Your task to perform on an android device: delete the emails in spam in the gmail app Image 0: 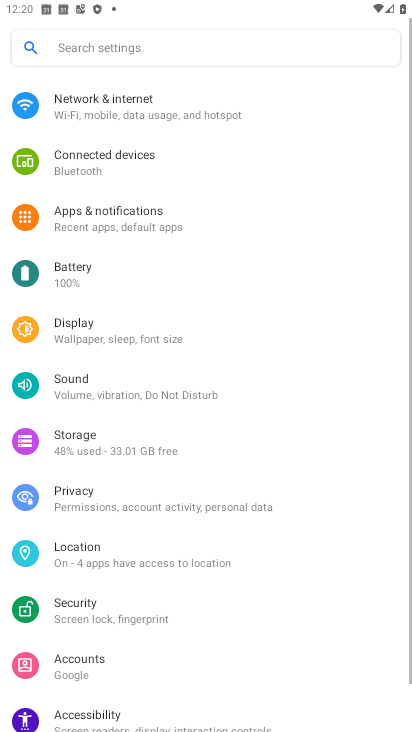
Step 0: drag from (271, 552) to (297, 189)
Your task to perform on an android device: delete the emails in spam in the gmail app Image 1: 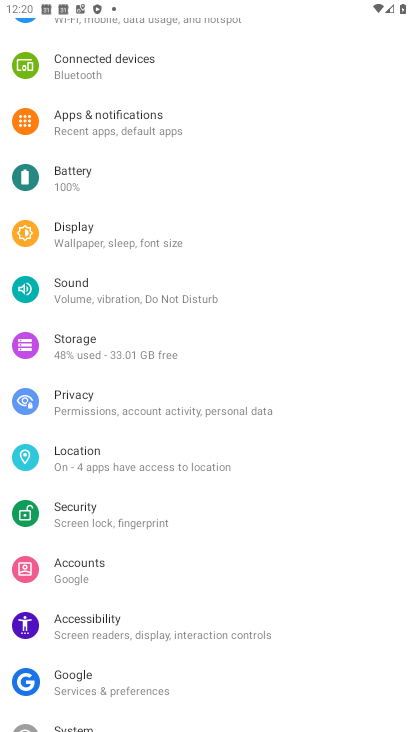
Step 1: click (145, 118)
Your task to perform on an android device: delete the emails in spam in the gmail app Image 2: 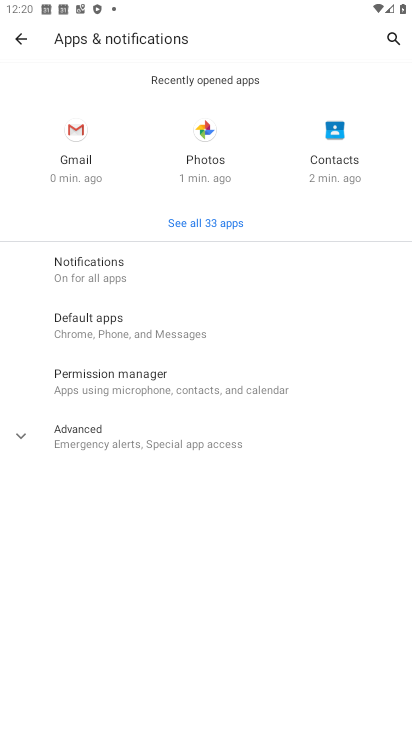
Step 2: click (75, 144)
Your task to perform on an android device: delete the emails in spam in the gmail app Image 3: 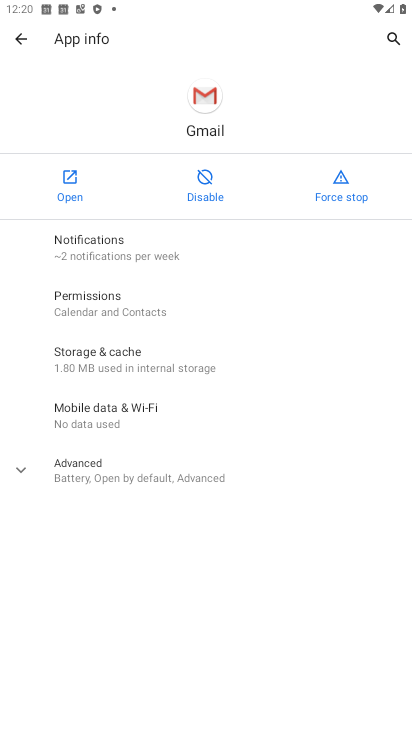
Step 3: click (54, 180)
Your task to perform on an android device: delete the emails in spam in the gmail app Image 4: 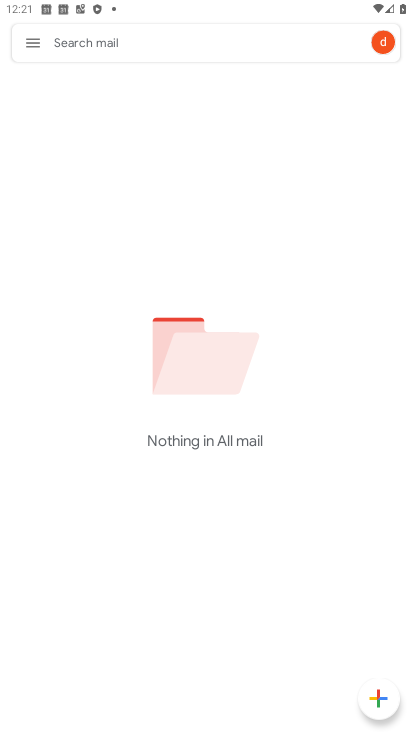
Step 4: click (31, 41)
Your task to perform on an android device: delete the emails in spam in the gmail app Image 5: 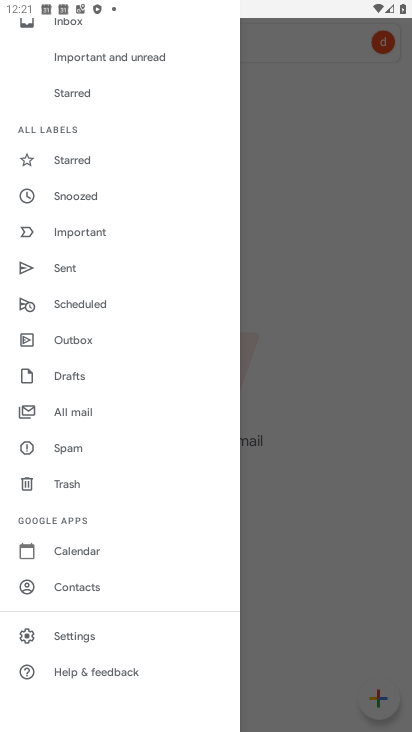
Step 5: click (80, 408)
Your task to perform on an android device: delete the emails in spam in the gmail app Image 6: 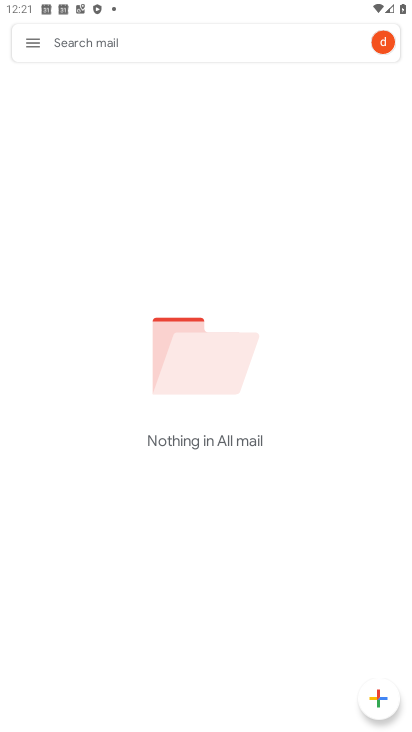
Step 6: click (29, 35)
Your task to perform on an android device: delete the emails in spam in the gmail app Image 7: 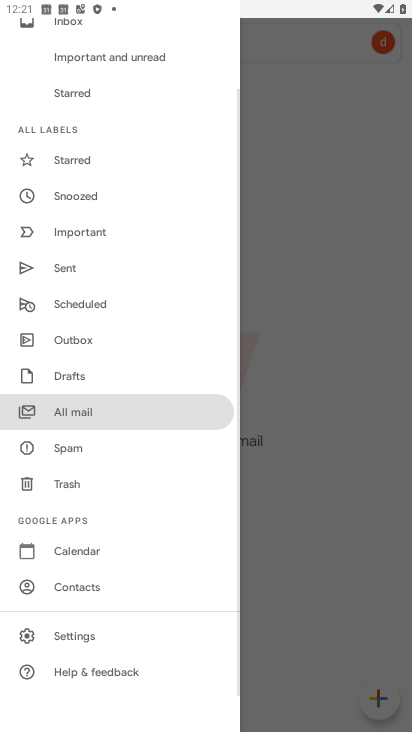
Step 7: click (85, 452)
Your task to perform on an android device: delete the emails in spam in the gmail app Image 8: 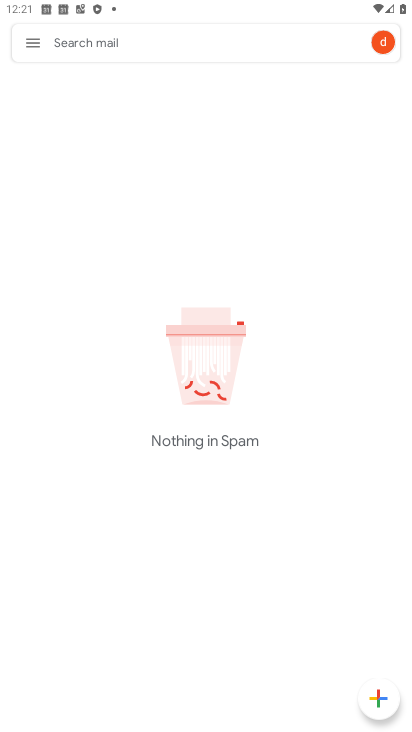
Step 8: task complete